Your task to perform on an android device: What's the weather today? Image 0: 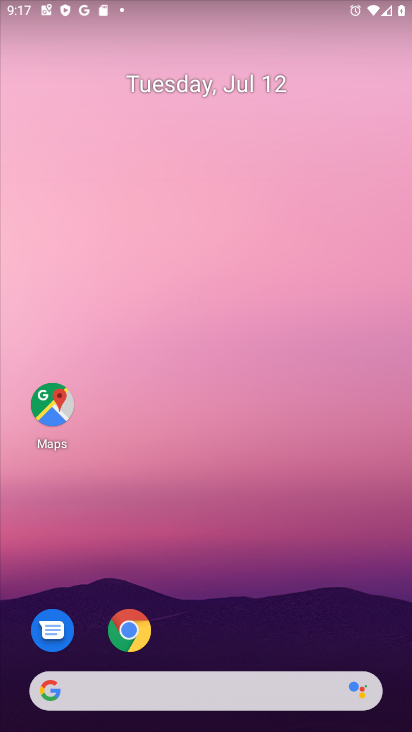
Step 0: drag from (227, 630) to (267, 152)
Your task to perform on an android device: What's the weather today? Image 1: 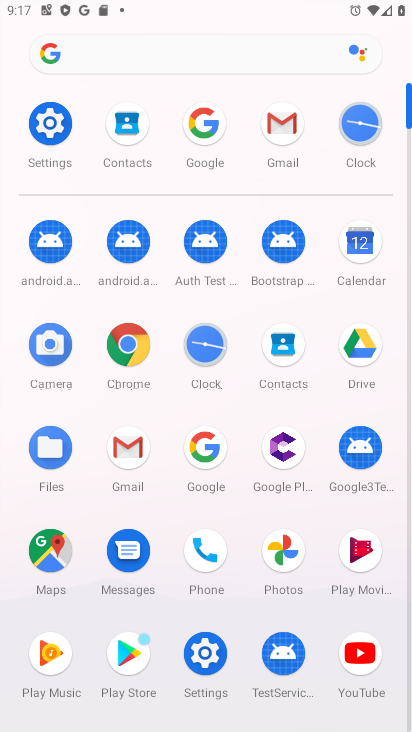
Step 1: click (206, 115)
Your task to perform on an android device: What's the weather today? Image 2: 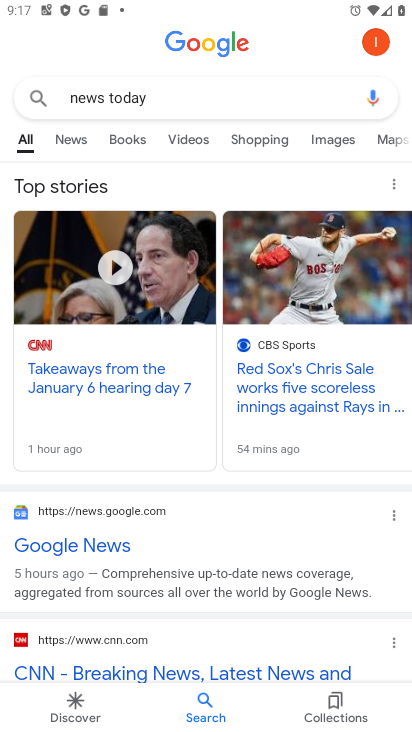
Step 2: click (215, 105)
Your task to perform on an android device: What's the weather today? Image 3: 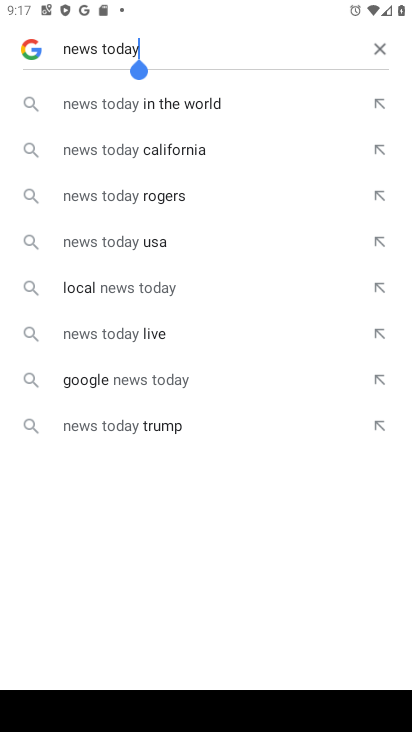
Step 3: click (379, 51)
Your task to perform on an android device: What's the weather today? Image 4: 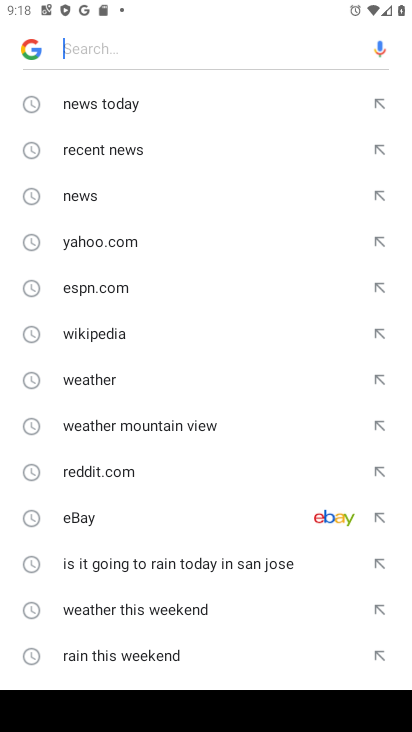
Step 4: type "weather today"
Your task to perform on an android device: What's the weather today? Image 5: 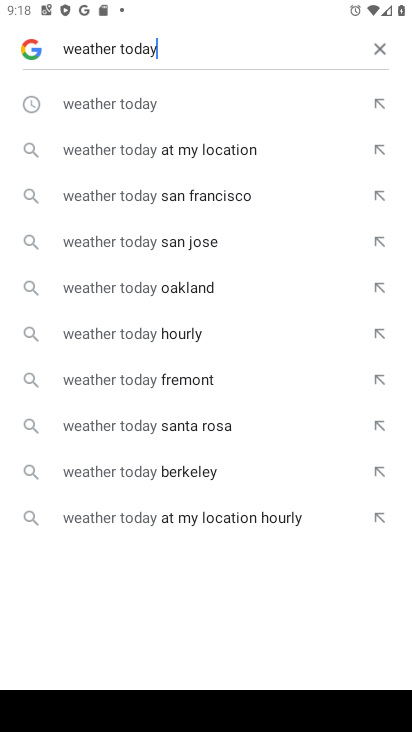
Step 5: click (161, 107)
Your task to perform on an android device: What's the weather today? Image 6: 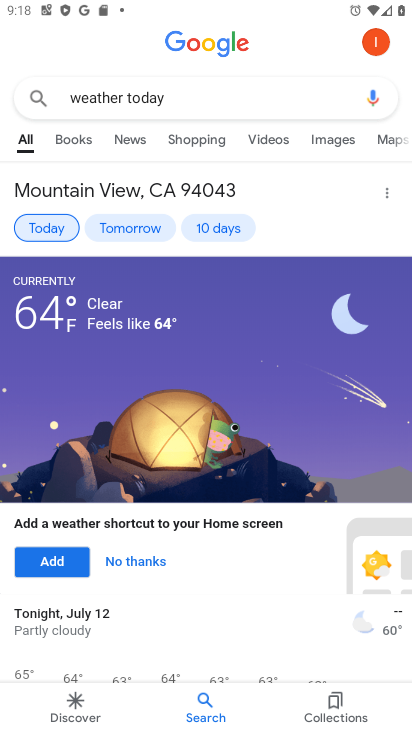
Step 6: task complete